Your task to perform on an android device: What is the news today? Image 0: 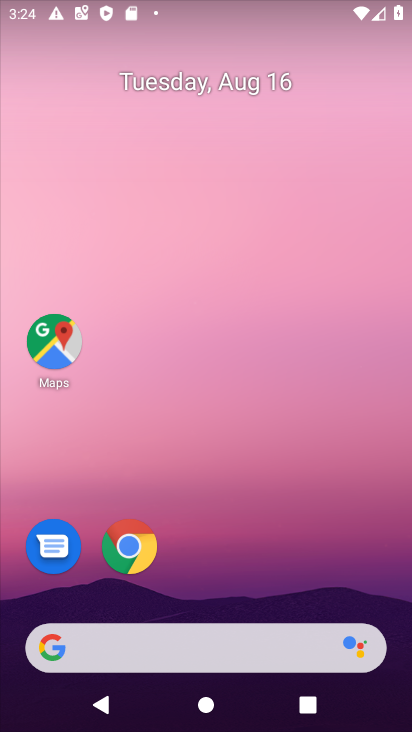
Step 0: press home button
Your task to perform on an android device: What is the news today? Image 1: 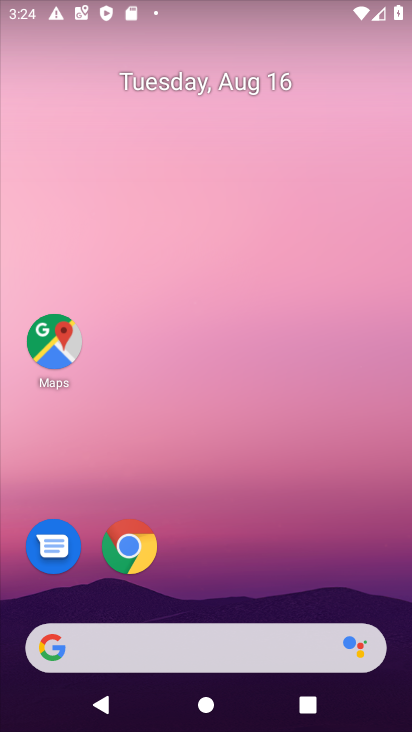
Step 1: task complete